Your task to perform on an android device: toggle sleep mode Image 0: 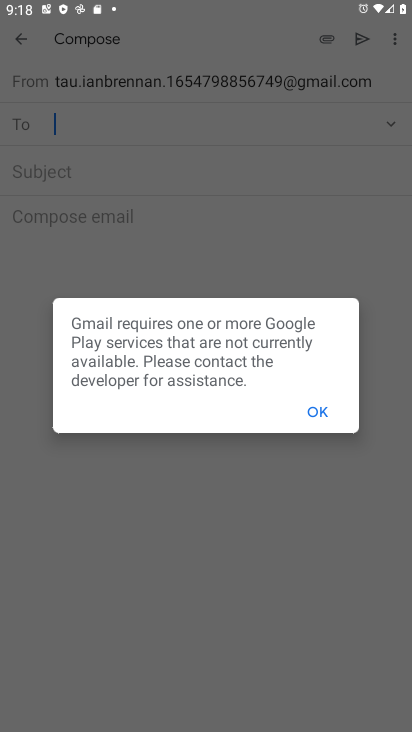
Step 0: click (329, 414)
Your task to perform on an android device: toggle sleep mode Image 1: 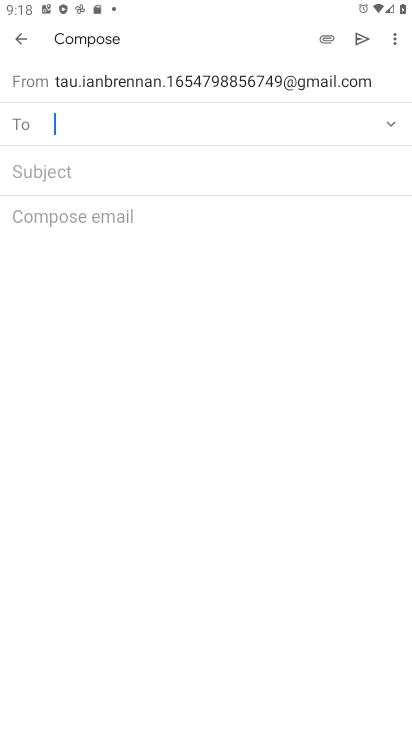
Step 1: click (23, 29)
Your task to perform on an android device: toggle sleep mode Image 2: 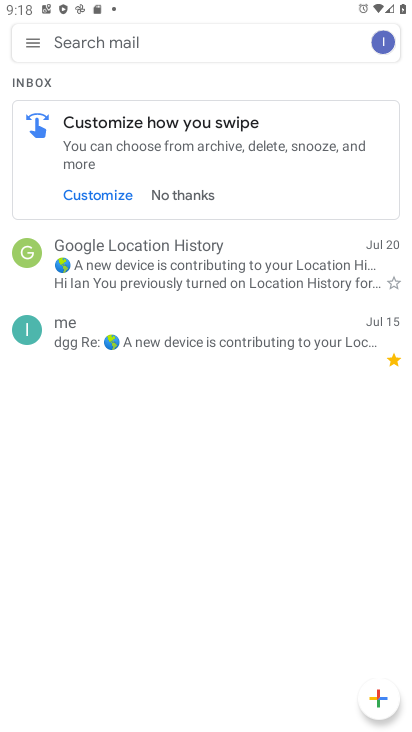
Step 2: press back button
Your task to perform on an android device: toggle sleep mode Image 3: 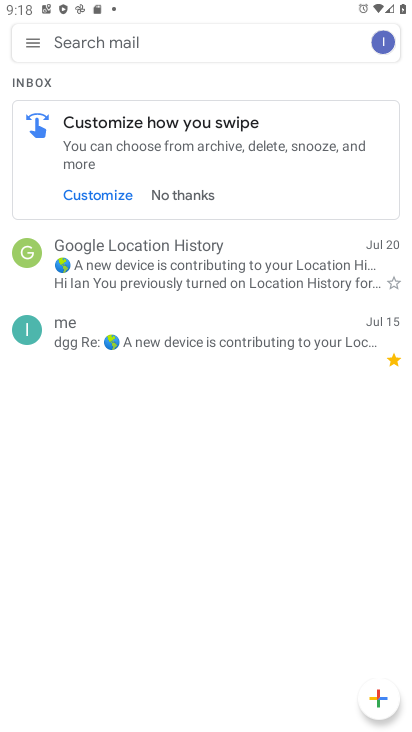
Step 3: press back button
Your task to perform on an android device: toggle sleep mode Image 4: 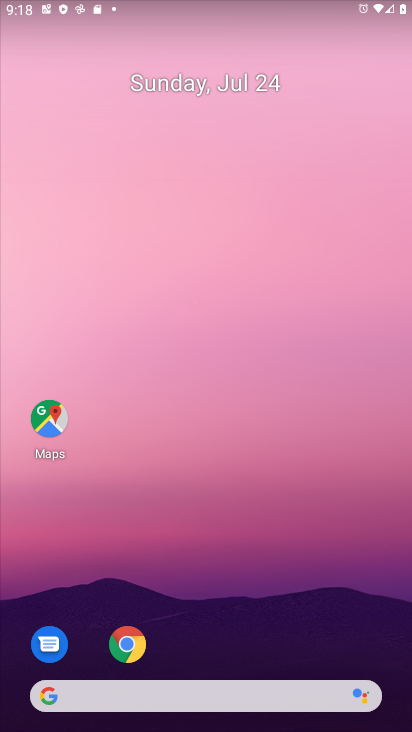
Step 4: drag from (248, 523) to (234, 9)
Your task to perform on an android device: toggle sleep mode Image 5: 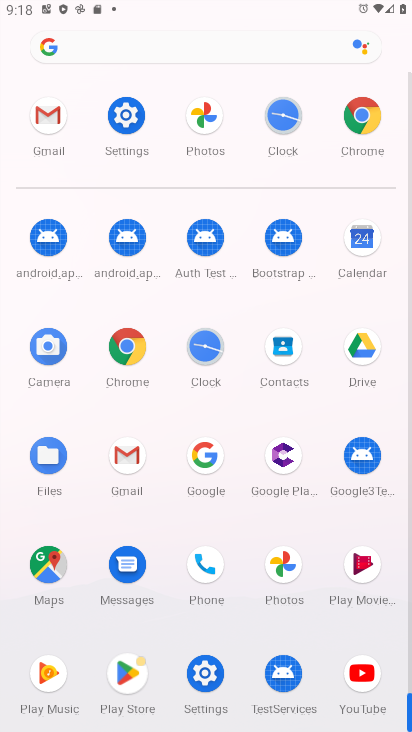
Step 5: click (122, 122)
Your task to perform on an android device: toggle sleep mode Image 6: 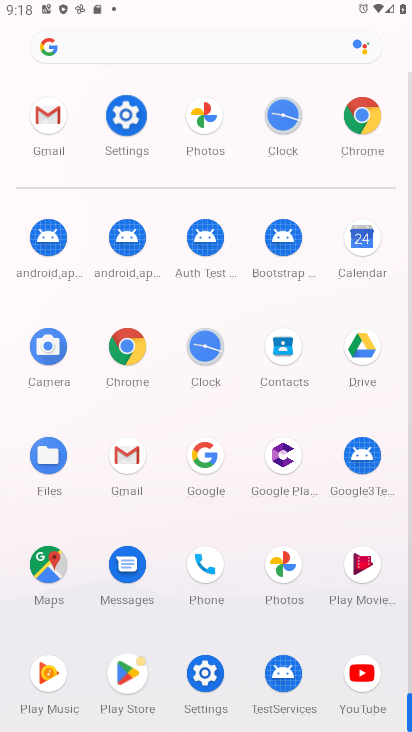
Step 6: click (124, 122)
Your task to perform on an android device: toggle sleep mode Image 7: 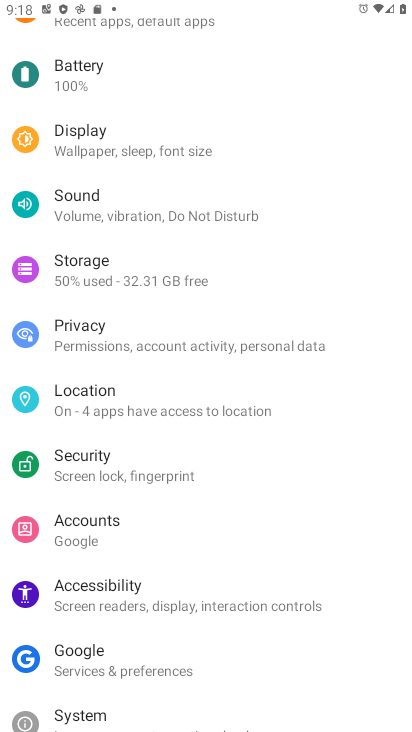
Step 7: click (98, 146)
Your task to perform on an android device: toggle sleep mode Image 8: 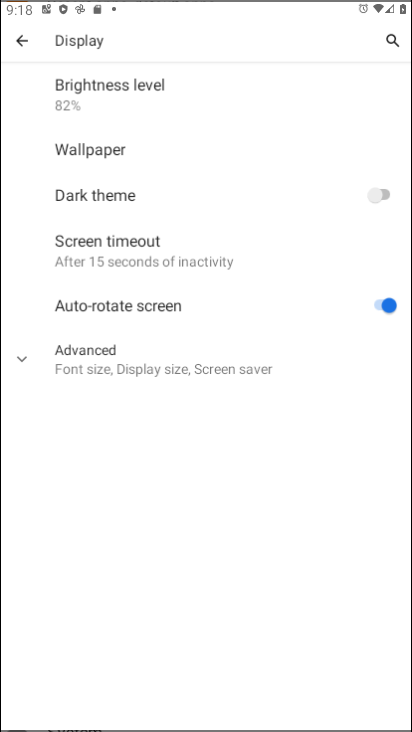
Step 8: click (114, 156)
Your task to perform on an android device: toggle sleep mode Image 9: 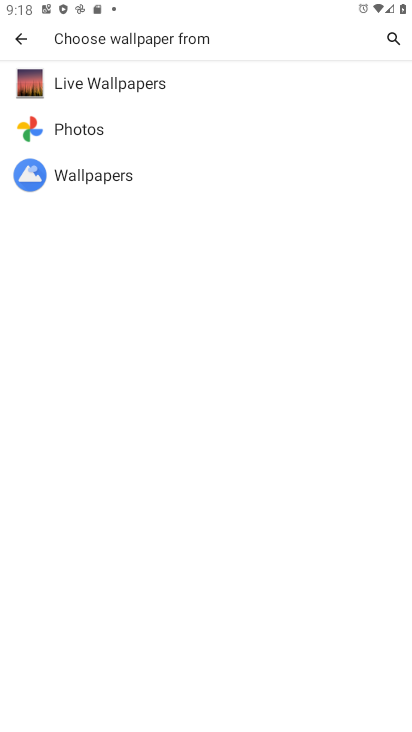
Step 9: click (14, 40)
Your task to perform on an android device: toggle sleep mode Image 10: 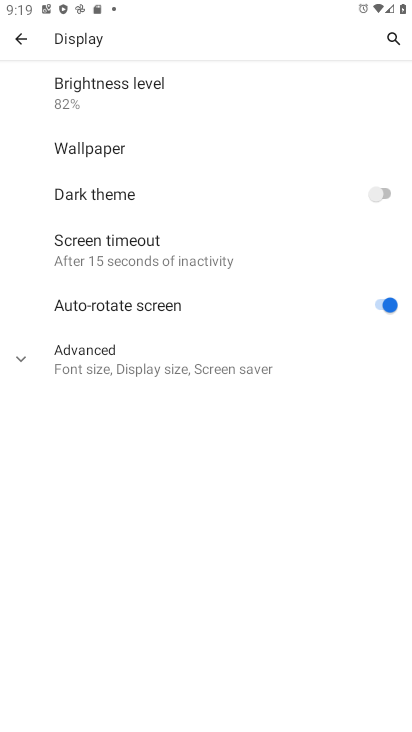
Step 10: click (113, 267)
Your task to perform on an android device: toggle sleep mode Image 11: 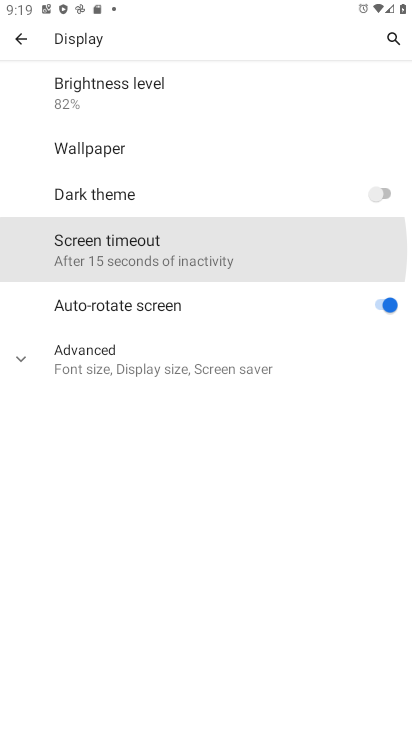
Step 11: click (130, 261)
Your task to perform on an android device: toggle sleep mode Image 12: 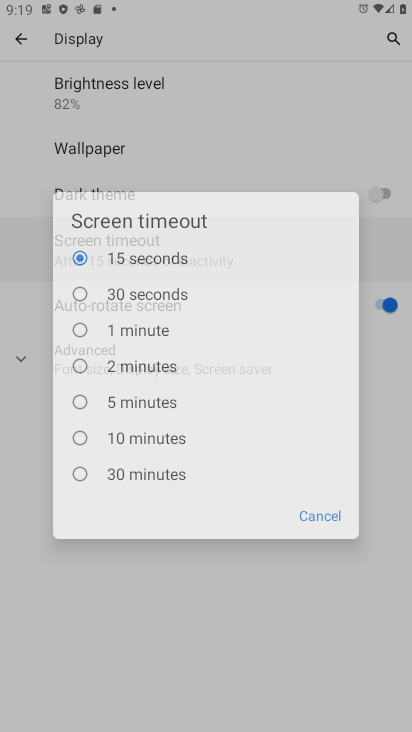
Step 12: click (127, 256)
Your task to perform on an android device: toggle sleep mode Image 13: 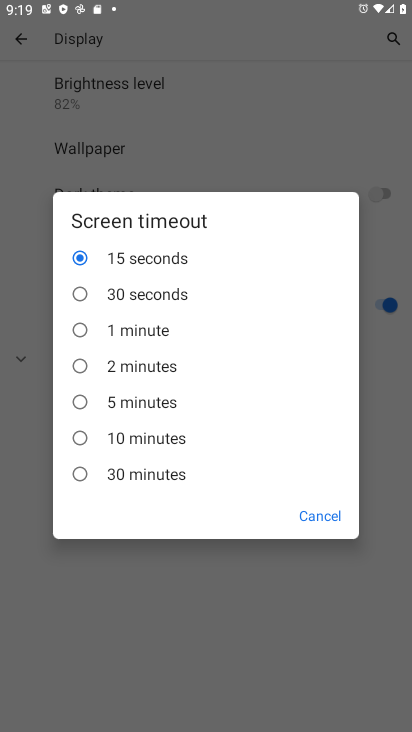
Step 13: click (127, 253)
Your task to perform on an android device: toggle sleep mode Image 14: 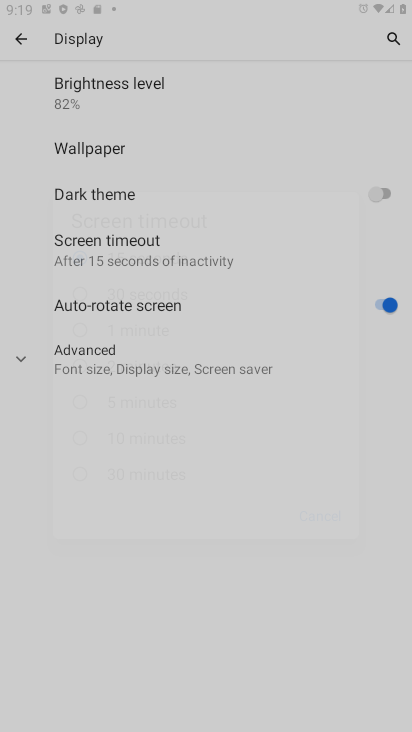
Step 14: click (130, 250)
Your task to perform on an android device: toggle sleep mode Image 15: 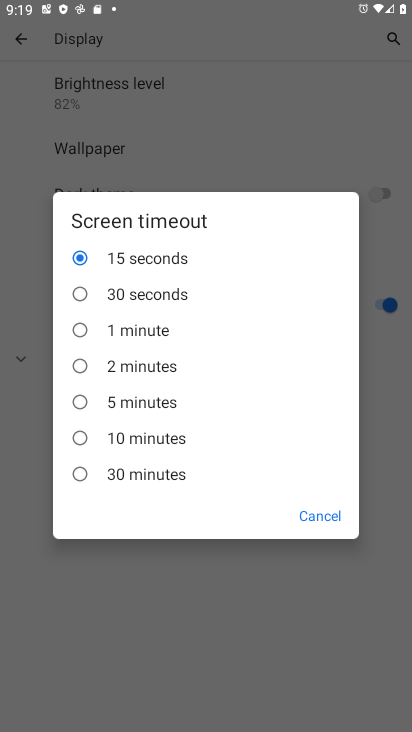
Step 15: click (89, 297)
Your task to perform on an android device: toggle sleep mode Image 16: 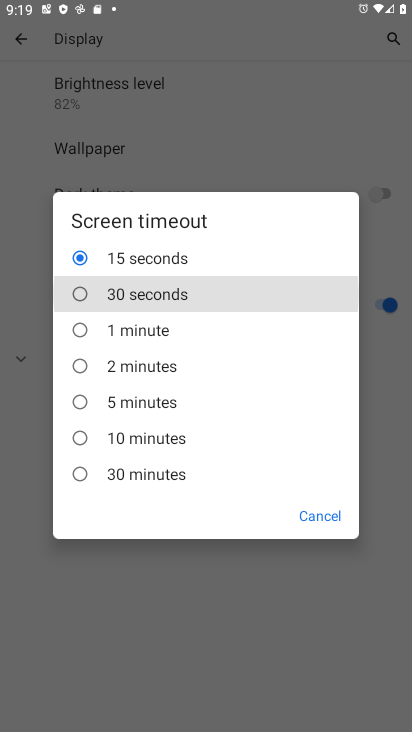
Step 16: click (84, 292)
Your task to perform on an android device: toggle sleep mode Image 17: 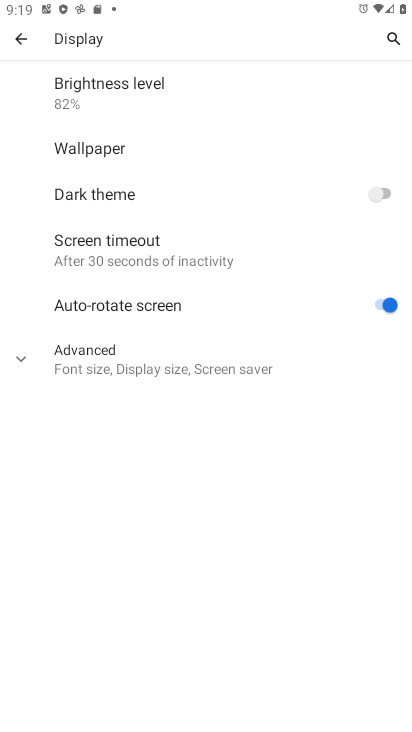
Step 17: click (84, 292)
Your task to perform on an android device: toggle sleep mode Image 18: 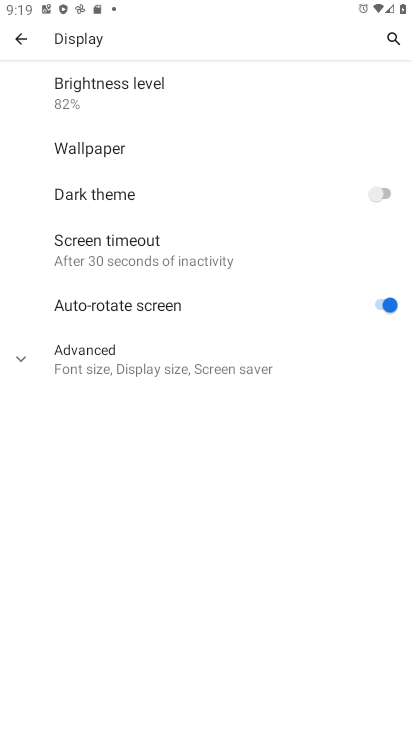
Step 18: task complete